Your task to perform on an android device: turn on bluetooth scan Image 0: 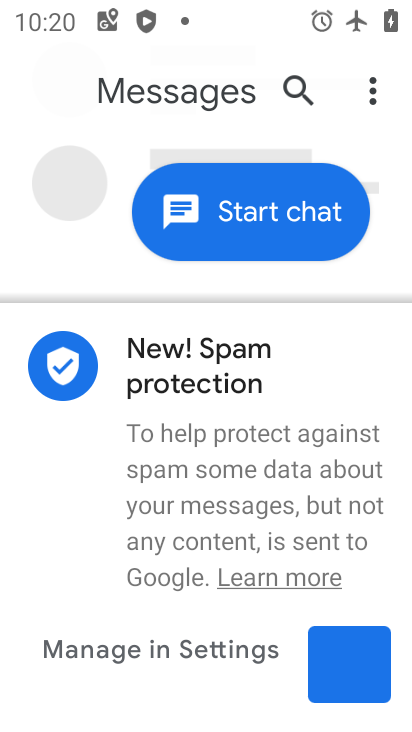
Step 0: press home button
Your task to perform on an android device: turn on bluetooth scan Image 1: 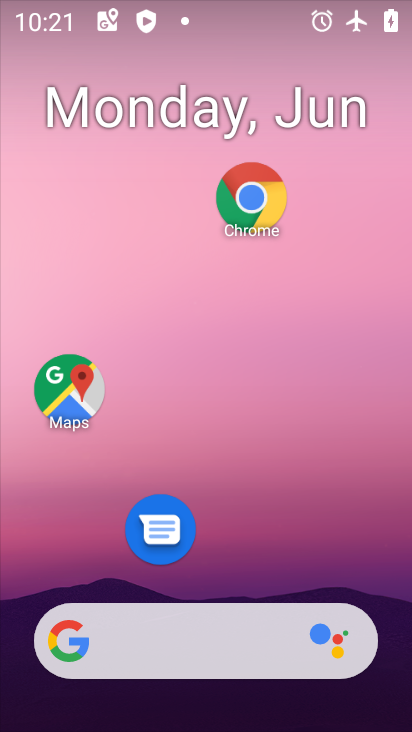
Step 1: drag from (243, 540) to (243, 126)
Your task to perform on an android device: turn on bluetooth scan Image 2: 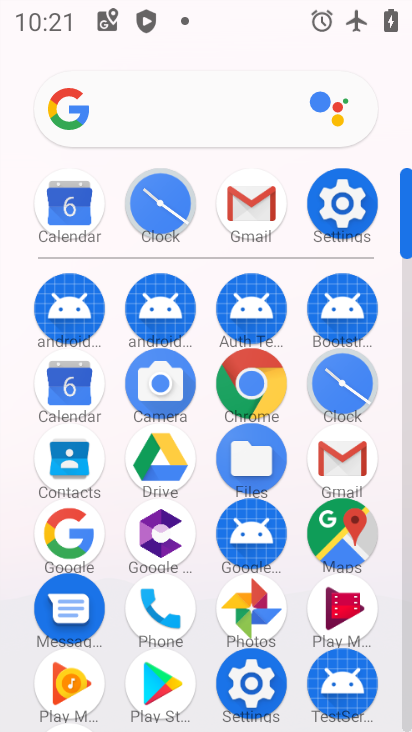
Step 2: click (333, 215)
Your task to perform on an android device: turn on bluetooth scan Image 3: 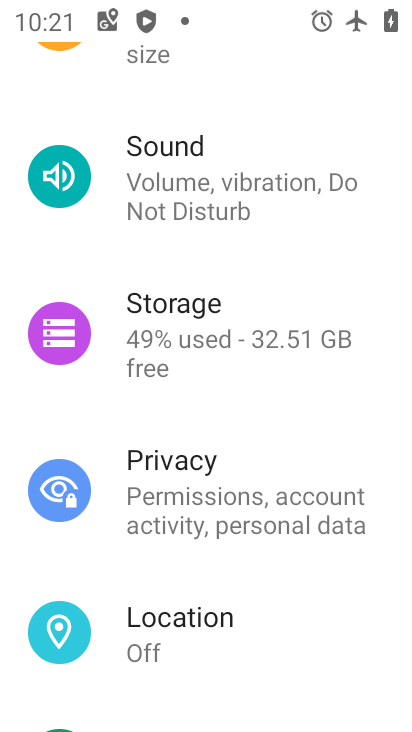
Step 3: click (230, 648)
Your task to perform on an android device: turn on bluetooth scan Image 4: 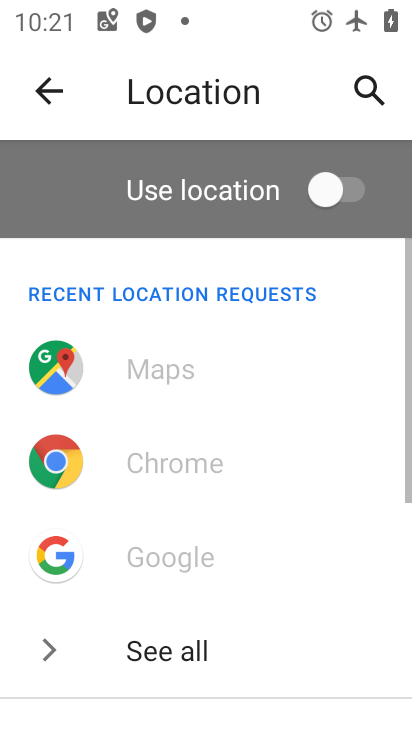
Step 4: drag from (230, 648) to (230, 304)
Your task to perform on an android device: turn on bluetooth scan Image 5: 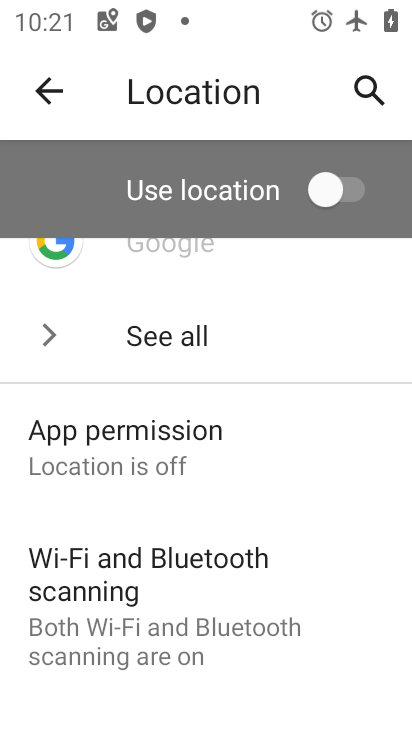
Step 5: drag from (243, 618) to (256, 428)
Your task to perform on an android device: turn on bluetooth scan Image 6: 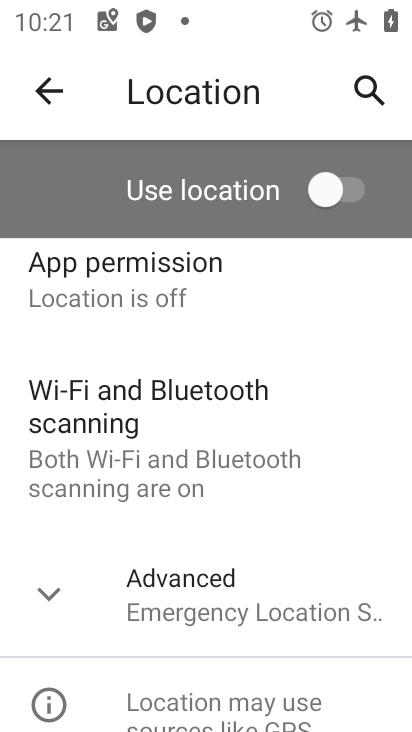
Step 6: click (255, 427)
Your task to perform on an android device: turn on bluetooth scan Image 7: 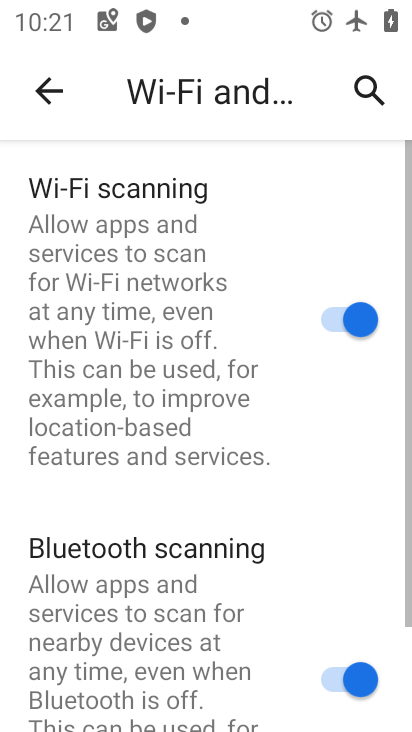
Step 7: task complete